Your task to perform on an android device: toggle notification dots Image 0: 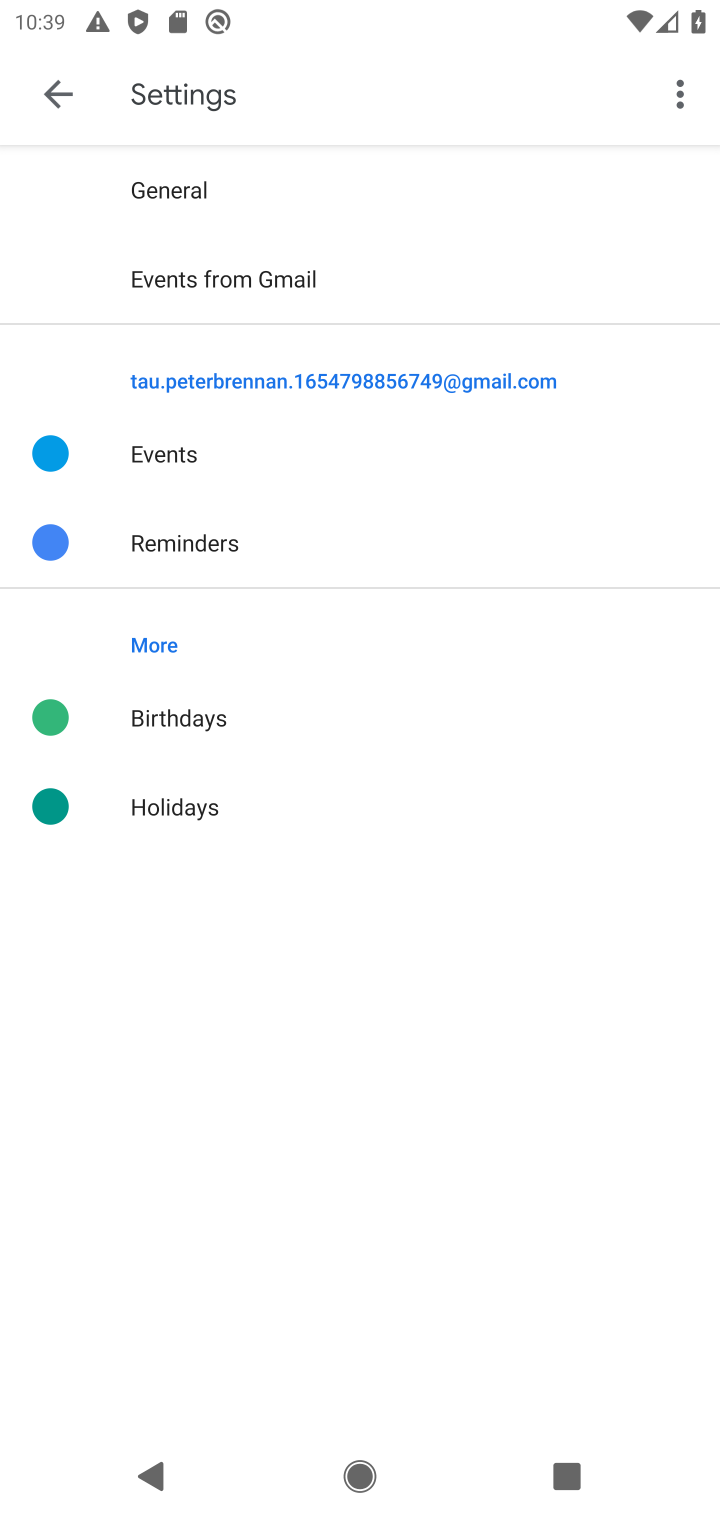
Step 0: press home button
Your task to perform on an android device: toggle notification dots Image 1: 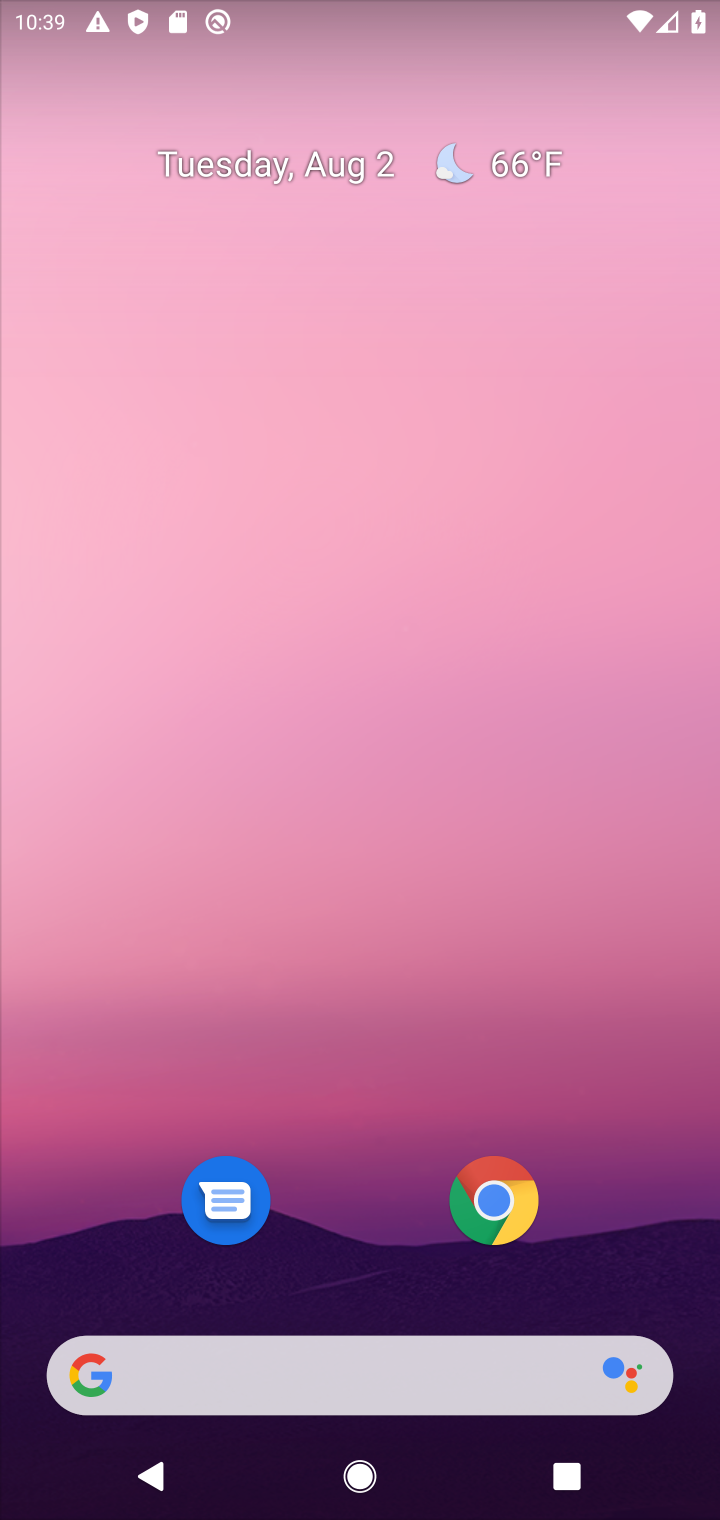
Step 1: drag from (646, 1268) to (578, 134)
Your task to perform on an android device: toggle notification dots Image 2: 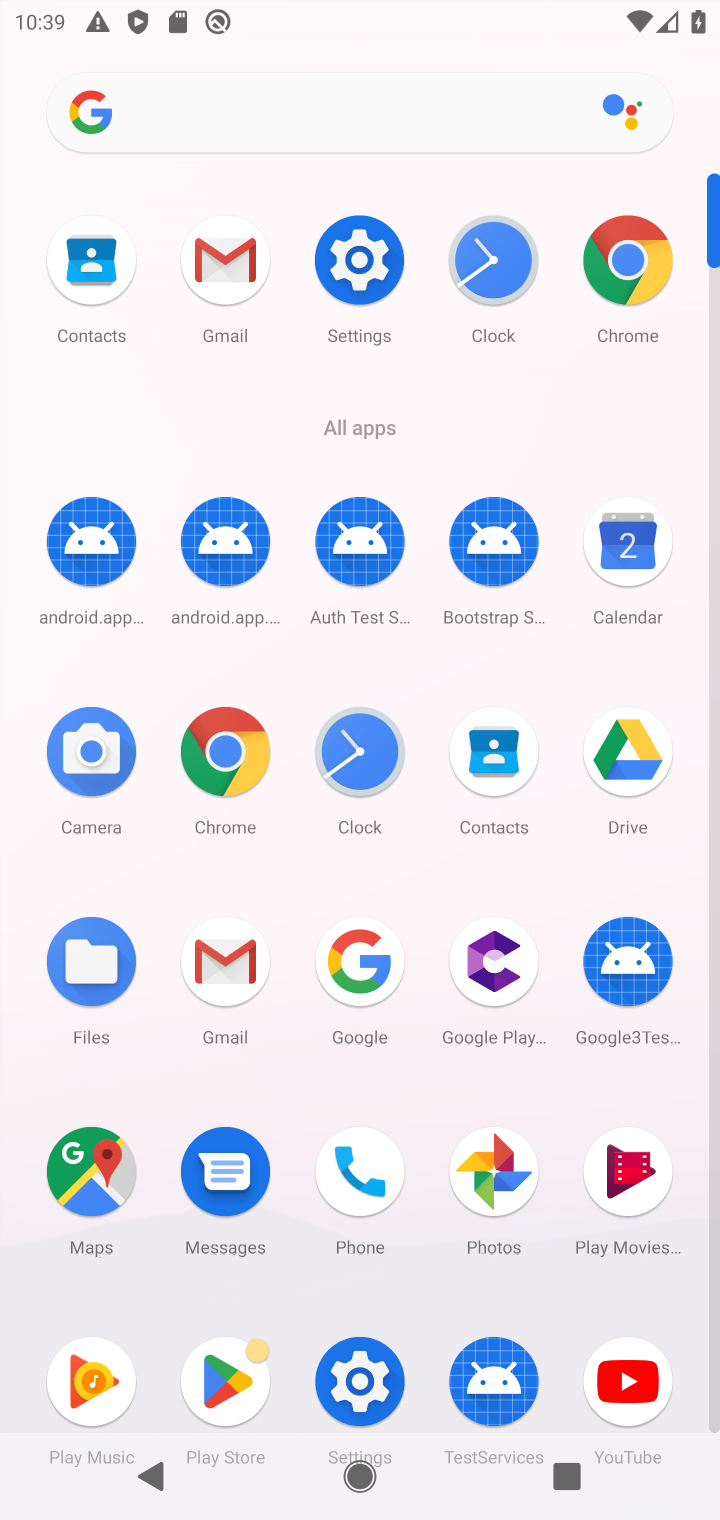
Step 2: click (367, 1387)
Your task to perform on an android device: toggle notification dots Image 3: 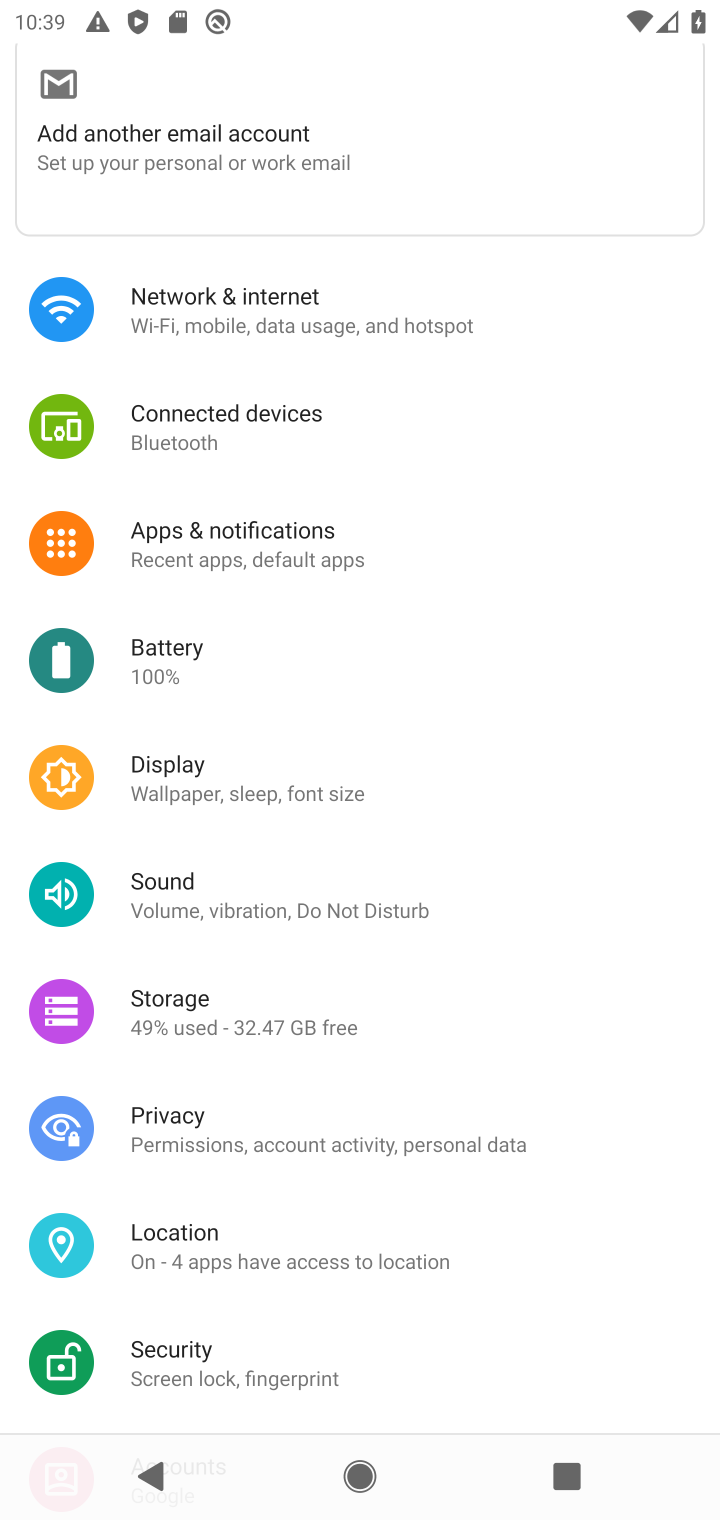
Step 3: click (195, 531)
Your task to perform on an android device: toggle notification dots Image 4: 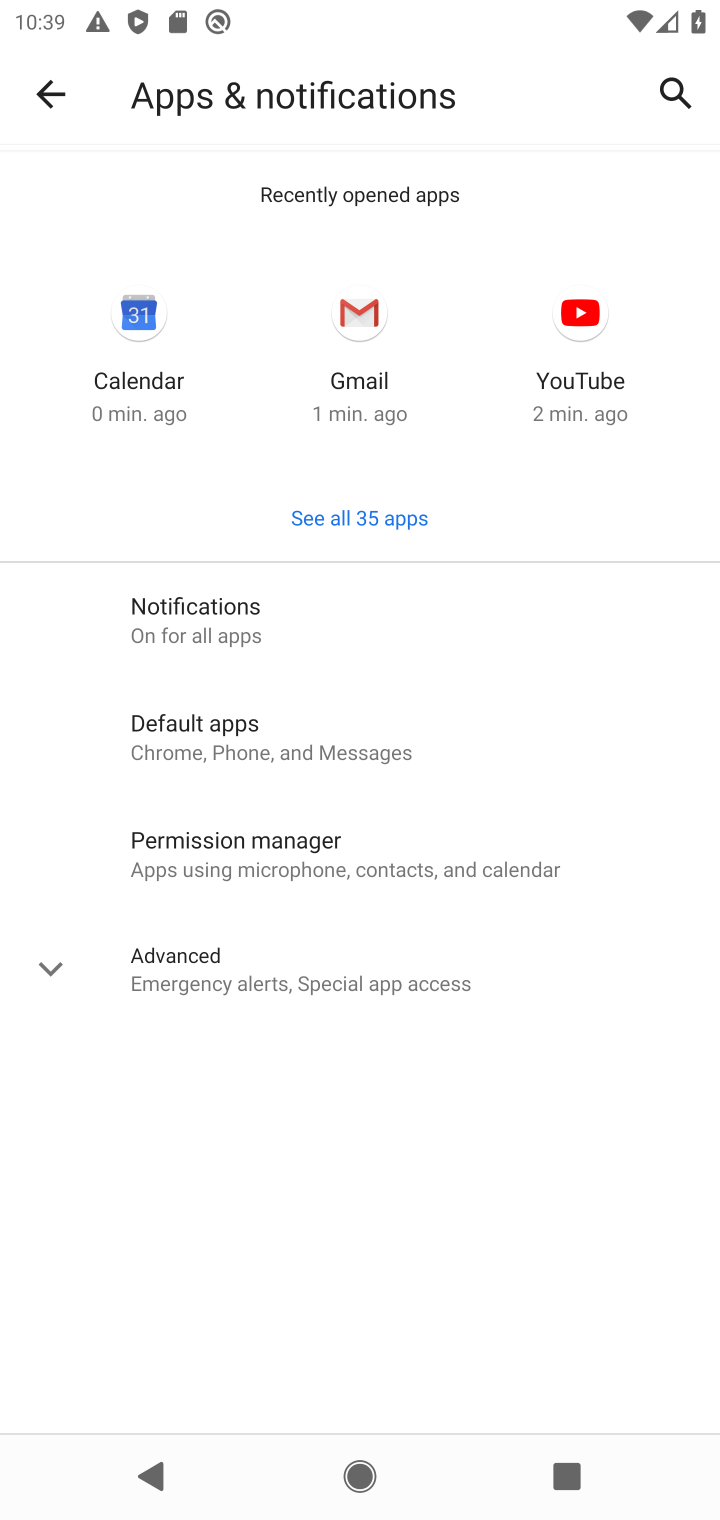
Step 4: click (195, 616)
Your task to perform on an android device: toggle notification dots Image 5: 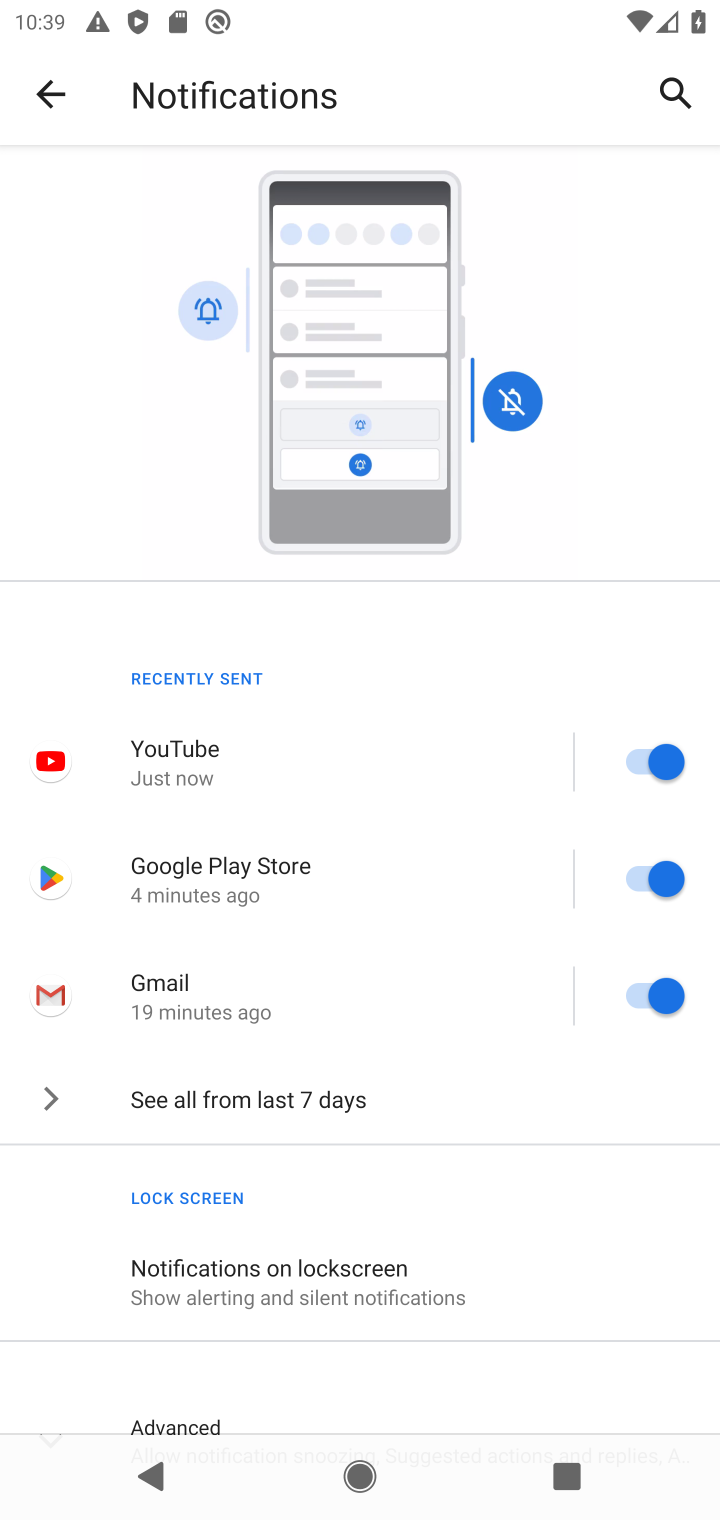
Step 5: drag from (568, 1144) to (536, 229)
Your task to perform on an android device: toggle notification dots Image 6: 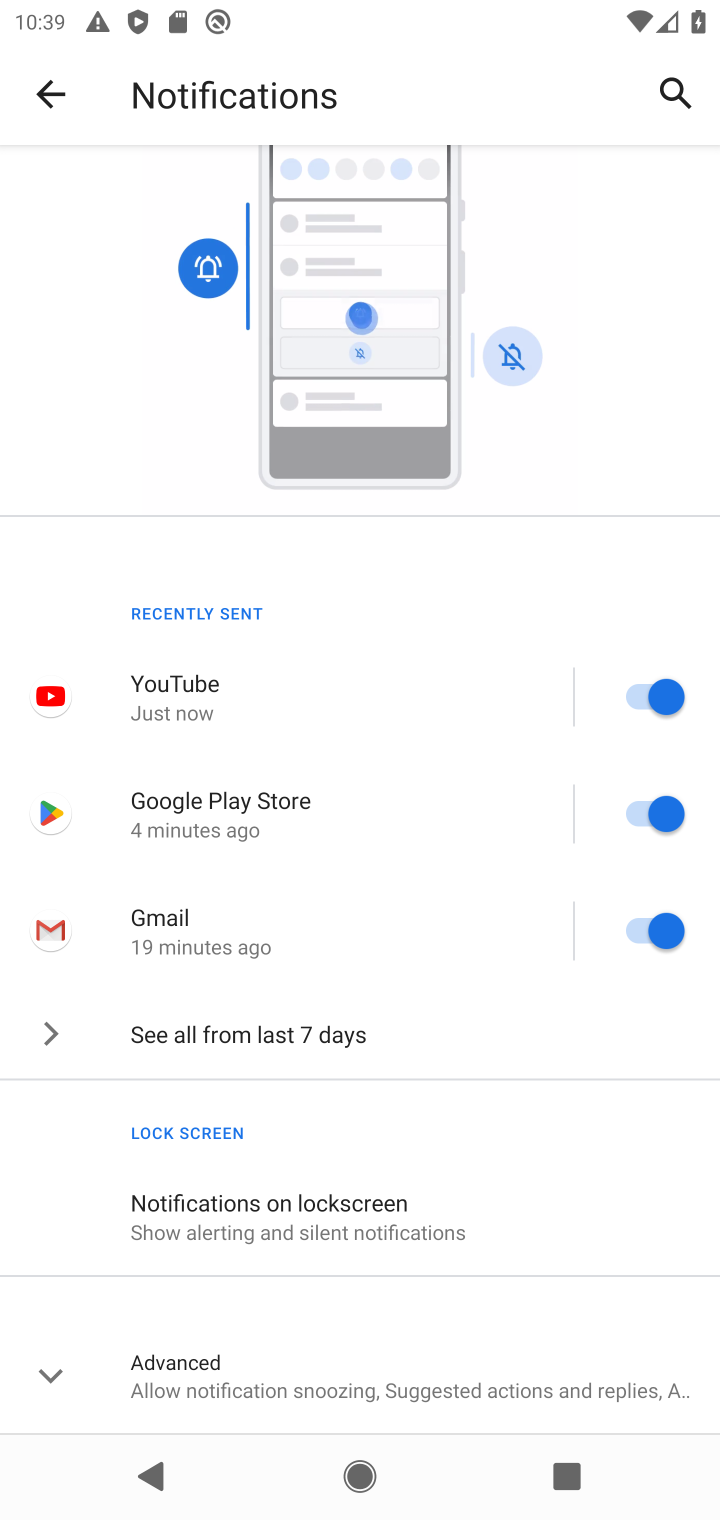
Step 6: click (46, 1377)
Your task to perform on an android device: toggle notification dots Image 7: 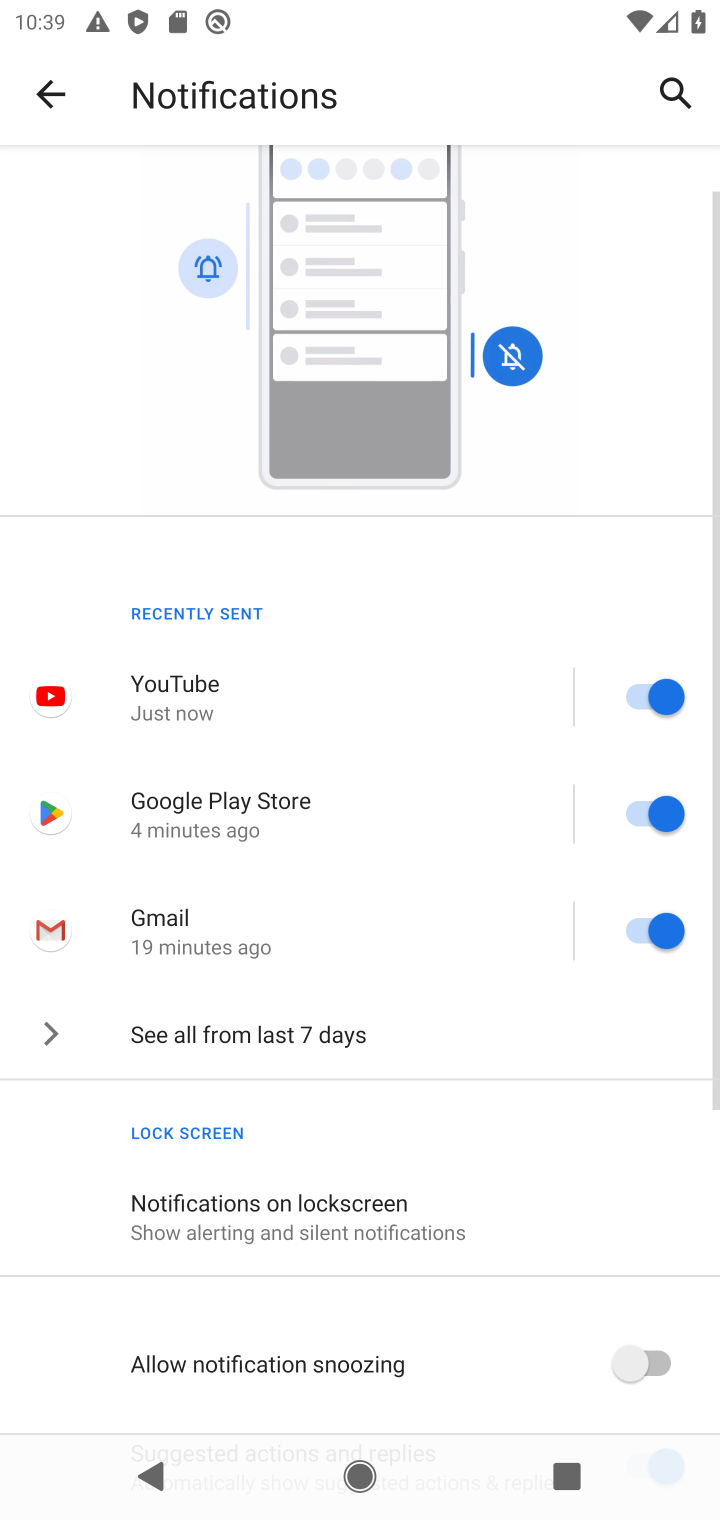
Step 7: drag from (558, 1311) to (553, 446)
Your task to perform on an android device: toggle notification dots Image 8: 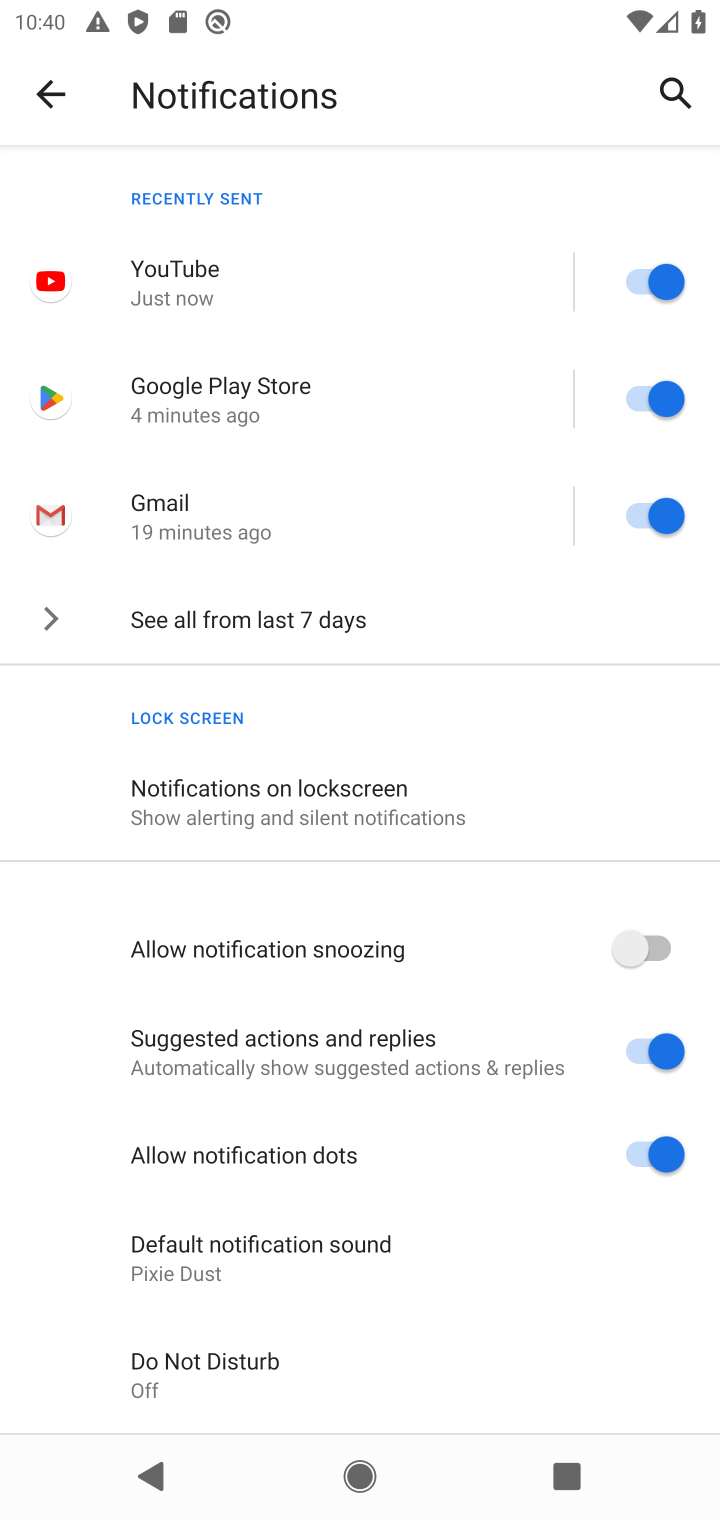
Step 8: click (633, 1152)
Your task to perform on an android device: toggle notification dots Image 9: 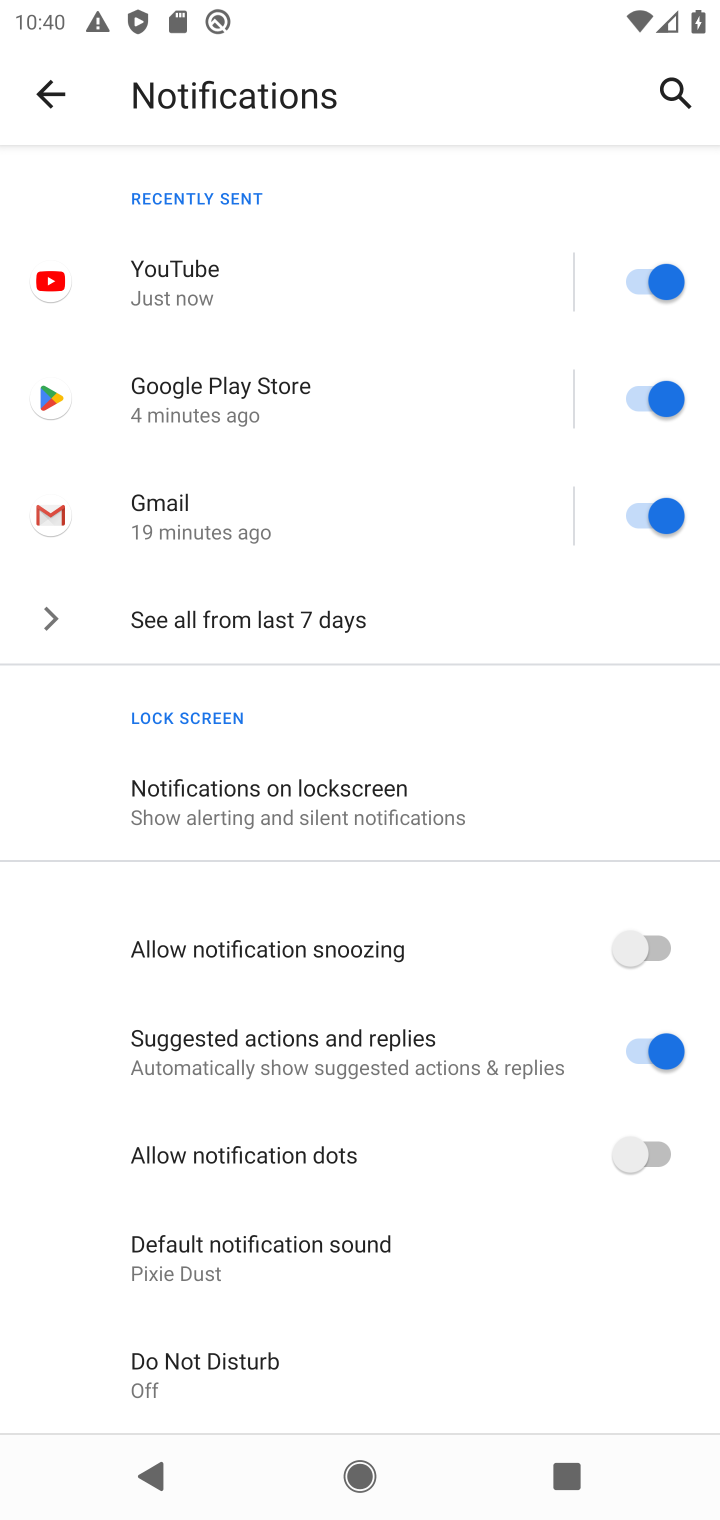
Step 9: task complete